Your task to perform on an android device: Go to Reddit.com Image 0: 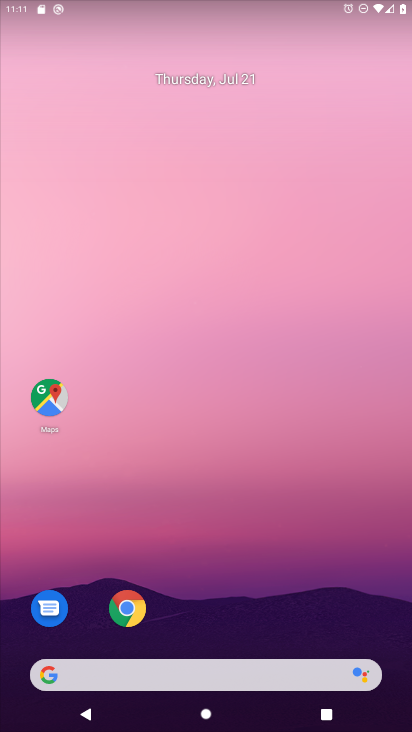
Step 0: drag from (372, 617) to (252, 4)
Your task to perform on an android device: Go to Reddit.com Image 1: 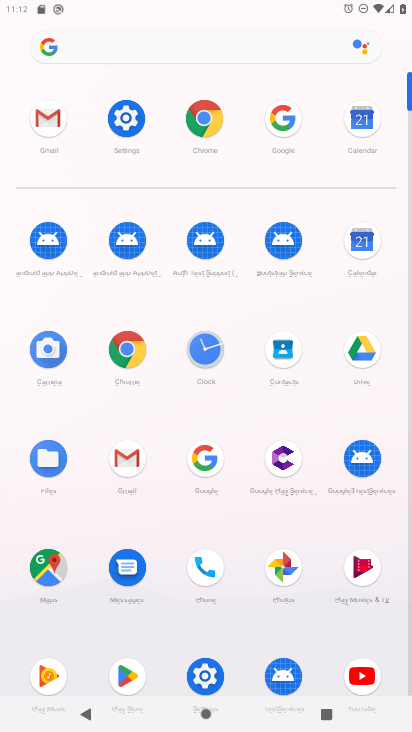
Step 1: click (197, 444)
Your task to perform on an android device: Go to Reddit.com Image 2: 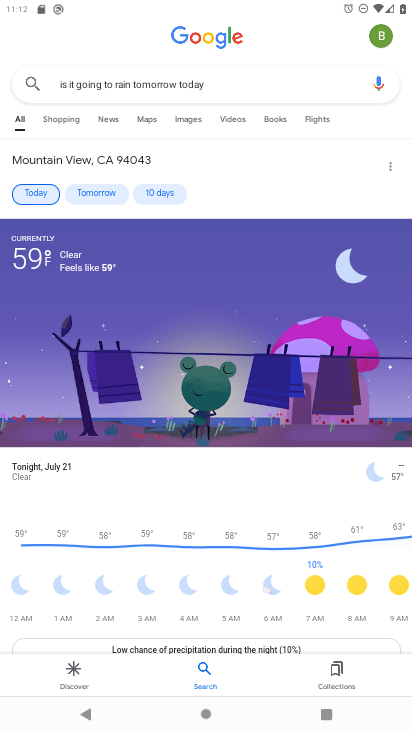
Step 2: press back button
Your task to perform on an android device: Go to Reddit.com Image 3: 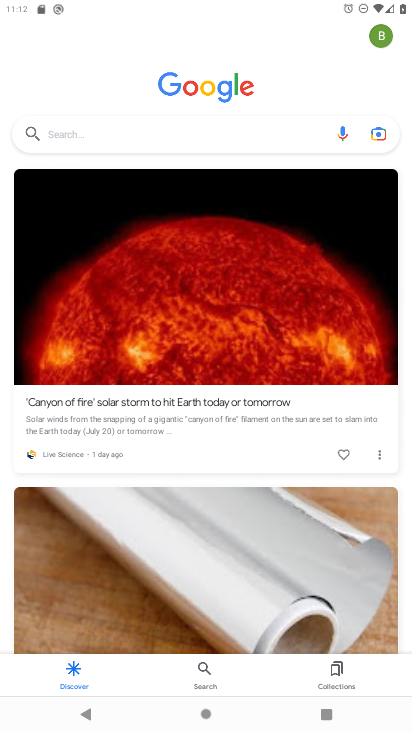
Step 3: click (147, 151)
Your task to perform on an android device: Go to Reddit.com Image 4: 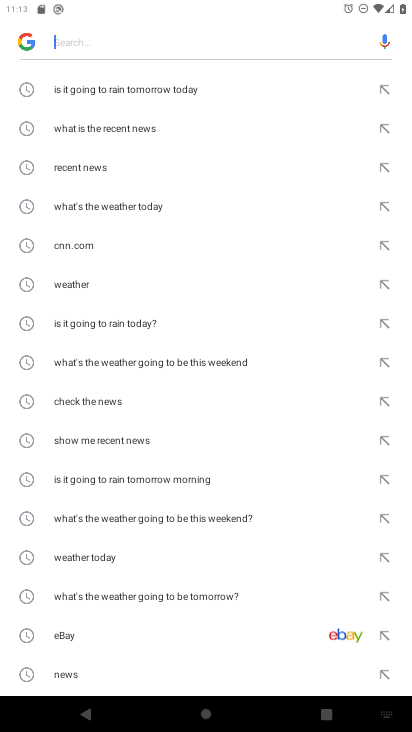
Step 4: type "Reddit.com"
Your task to perform on an android device: Go to Reddit.com Image 5: 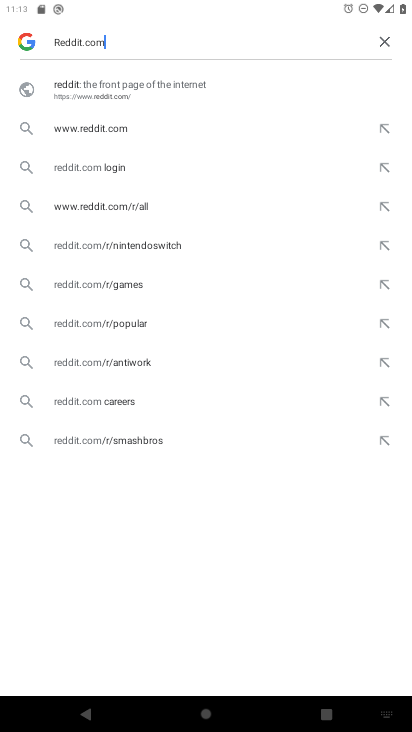
Step 5: click (71, 97)
Your task to perform on an android device: Go to Reddit.com Image 6: 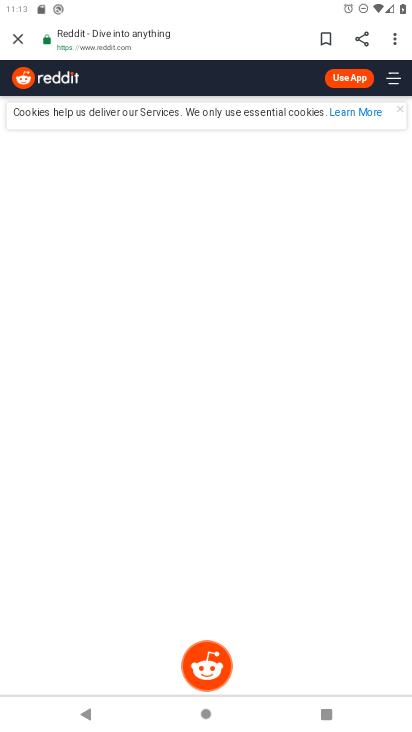
Step 6: task complete